Your task to perform on an android device: delete the emails in spam in the gmail app Image 0: 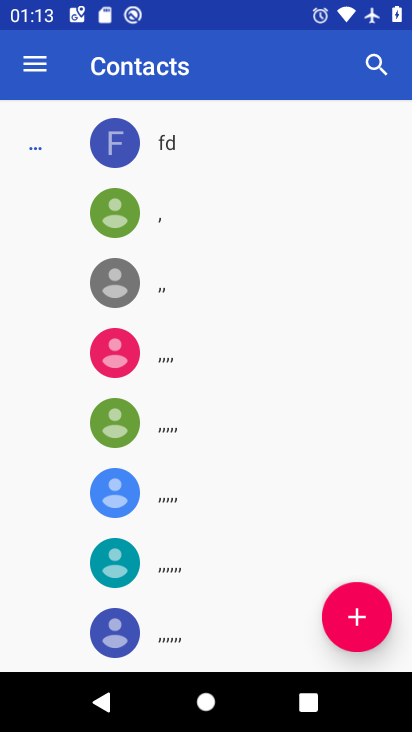
Step 0: press home button
Your task to perform on an android device: delete the emails in spam in the gmail app Image 1: 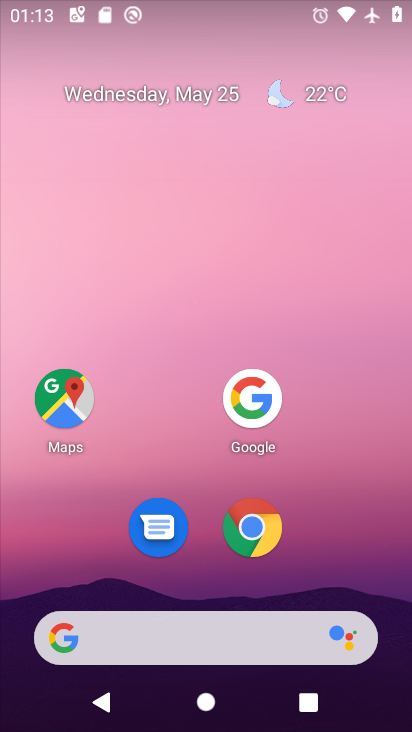
Step 1: drag from (151, 612) to (263, 243)
Your task to perform on an android device: delete the emails in spam in the gmail app Image 2: 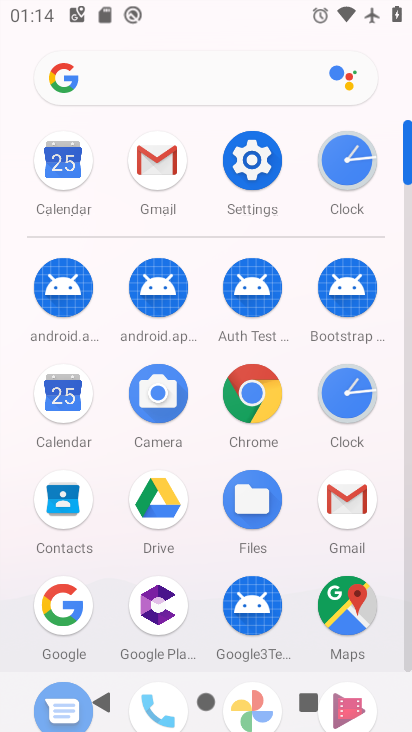
Step 2: click (160, 172)
Your task to perform on an android device: delete the emails in spam in the gmail app Image 3: 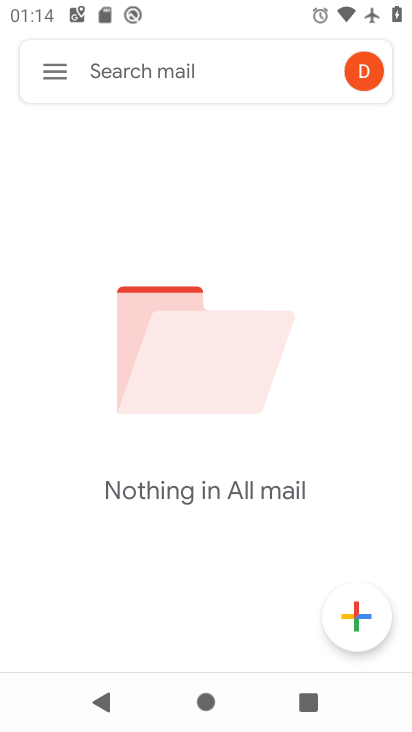
Step 3: click (55, 76)
Your task to perform on an android device: delete the emails in spam in the gmail app Image 4: 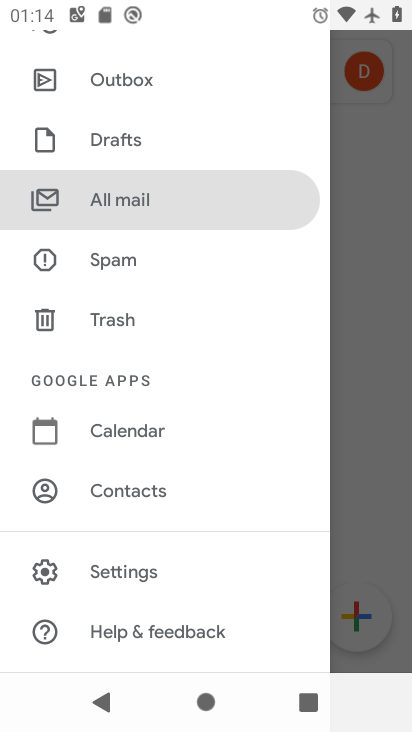
Step 4: click (125, 255)
Your task to perform on an android device: delete the emails in spam in the gmail app Image 5: 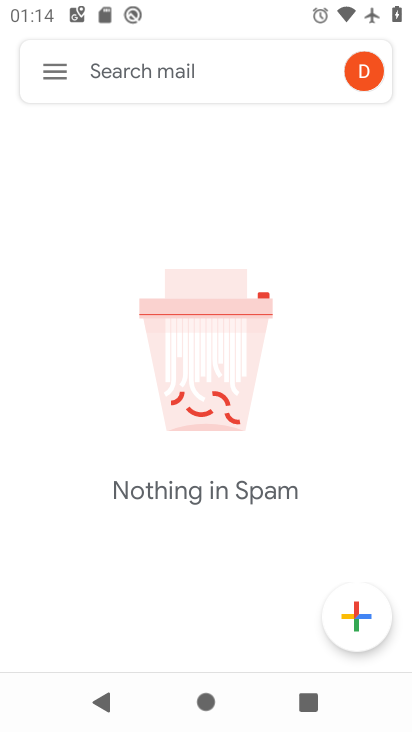
Step 5: task complete